Your task to perform on an android device: Open eBay Image 0: 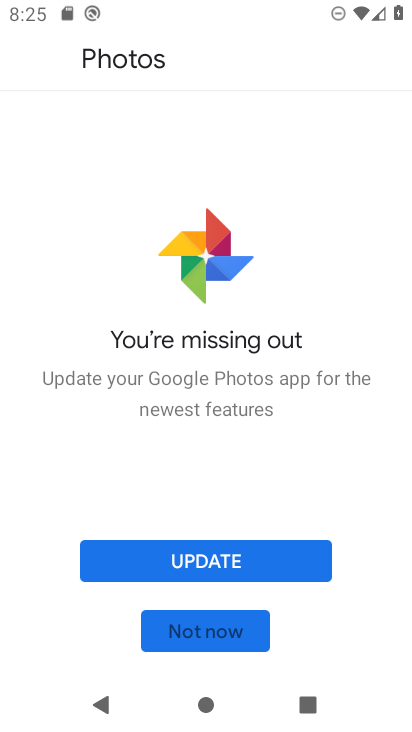
Step 0: press home button
Your task to perform on an android device: Open eBay Image 1: 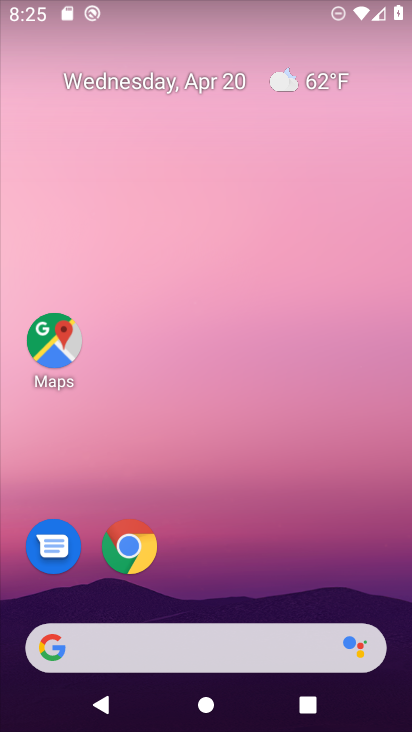
Step 1: click (243, 664)
Your task to perform on an android device: Open eBay Image 2: 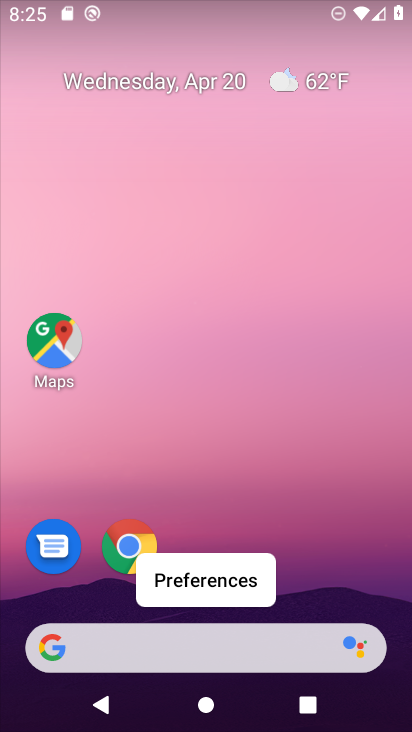
Step 2: click (243, 664)
Your task to perform on an android device: Open eBay Image 3: 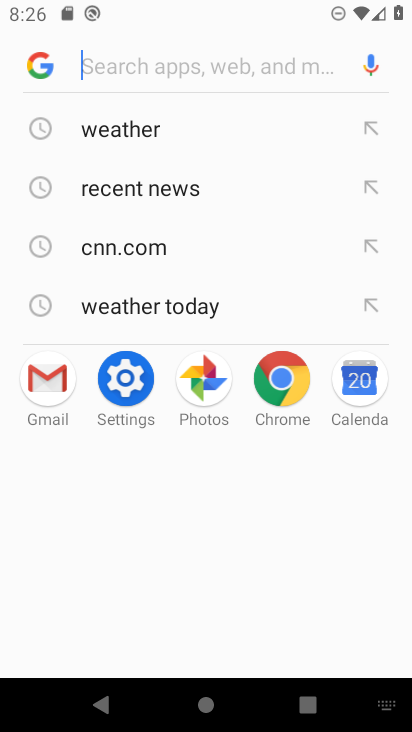
Step 3: type "eBay"
Your task to perform on an android device: Open eBay Image 4: 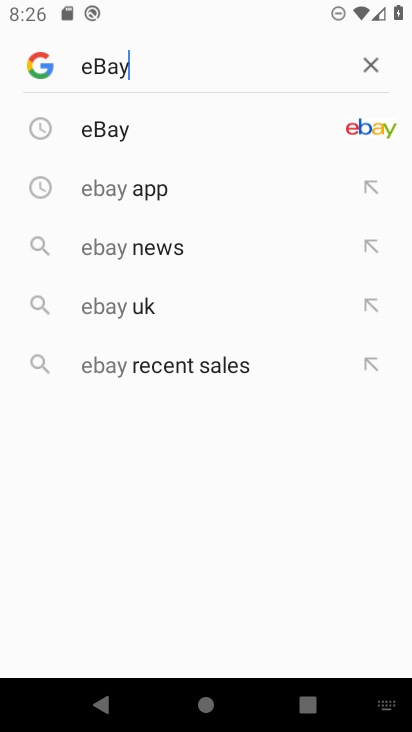
Step 4: click (290, 127)
Your task to perform on an android device: Open eBay Image 5: 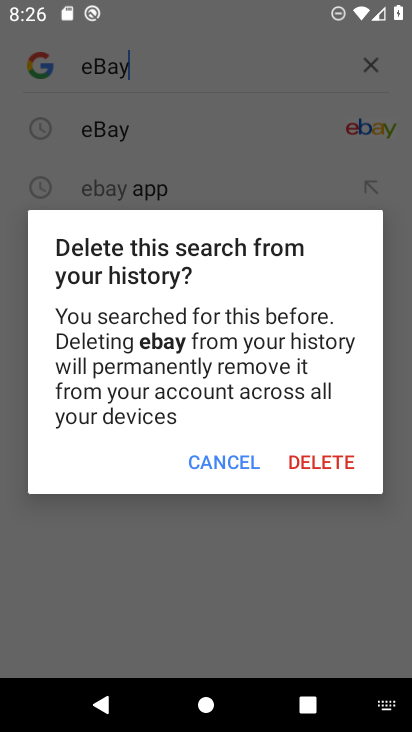
Step 5: click (240, 454)
Your task to perform on an android device: Open eBay Image 6: 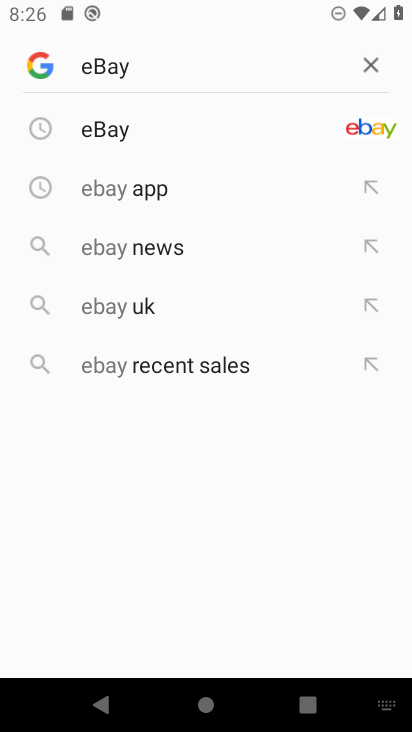
Step 6: click (299, 124)
Your task to perform on an android device: Open eBay Image 7: 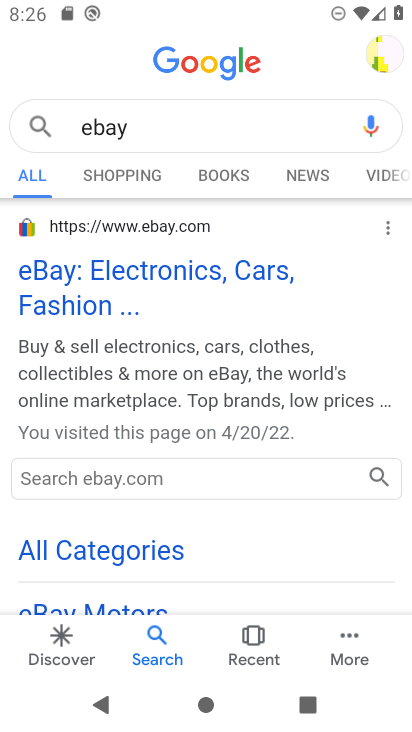
Step 7: click (214, 276)
Your task to perform on an android device: Open eBay Image 8: 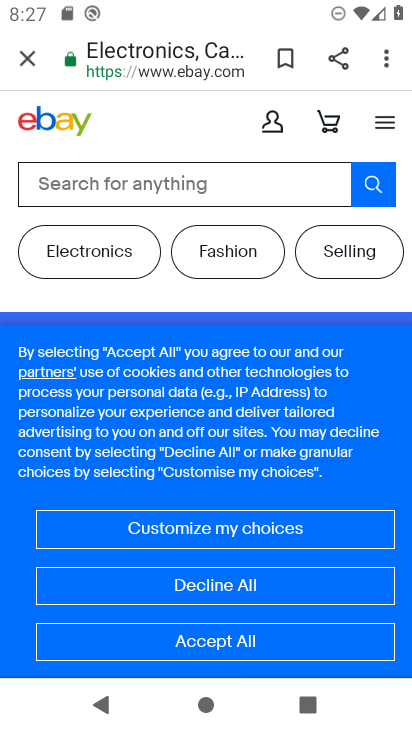
Step 8: task complete